Your task to perform on an android device: turn on notifications settings in the gmail app Image 0: 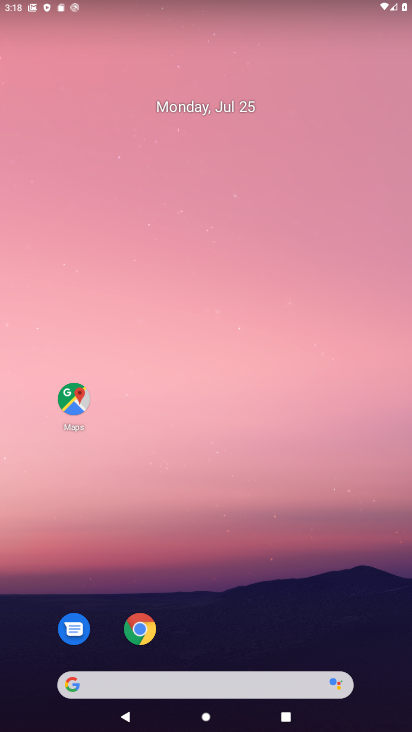
Step 0: drag from (210, 693) to (191, 50)
Your task to perform on an android device: turn on notifications settings in the gmail app Image 1: 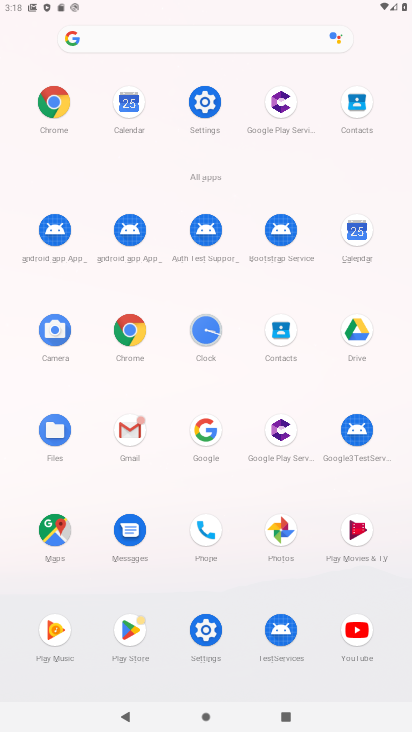
Step 1: click (133, 427)
Your task to perform on an android device: turn on notifications settings in the gmail app Image 2: 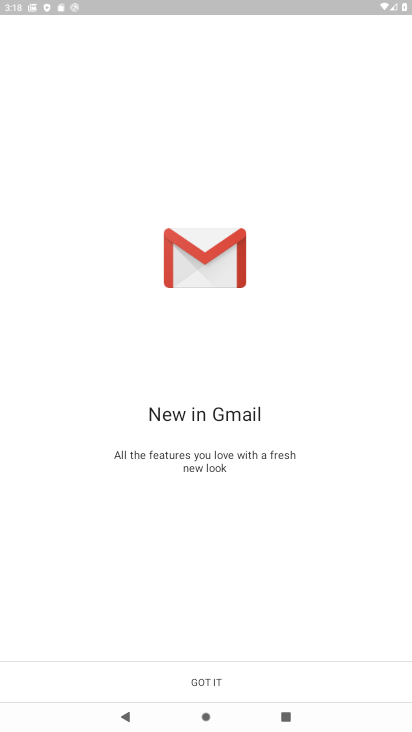
Step 2: click (222, 681)
Your task to perform on an android device: turn on notifications settings in the gmail app Image 3: 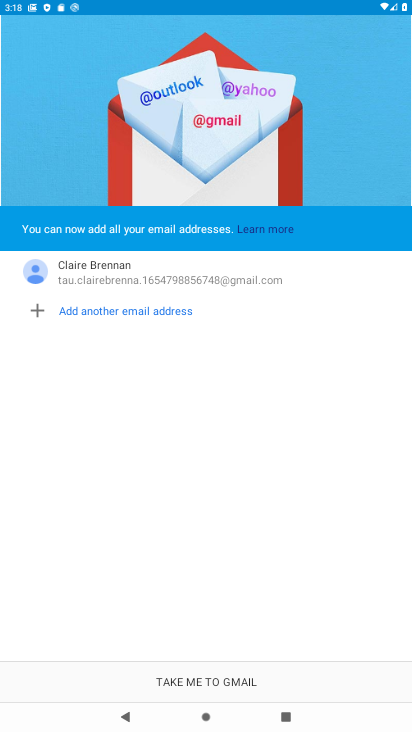
Step 3: click (255, 681)
Your task to perform on an android device: turn on notifications settings in the gmail app Image 4: 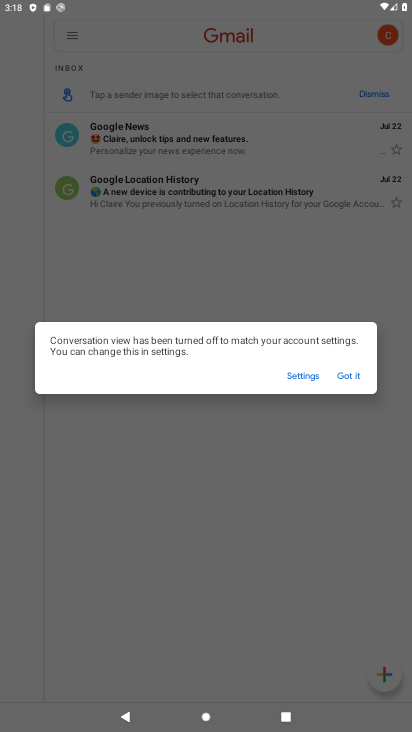
Step 4: click (340, 379)
Your task to perform on an android device: turn on notifications settings in the gmail app Image 5: 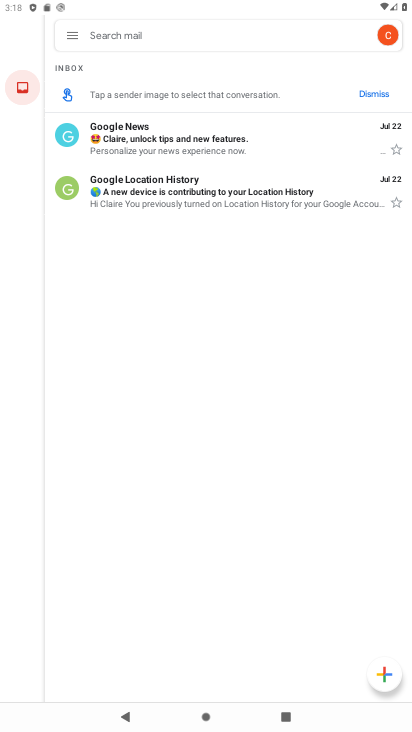
Step 5: click (67, 34)
Your task to perform on an android device: turn on notifications settings in the gmail app Image 6: 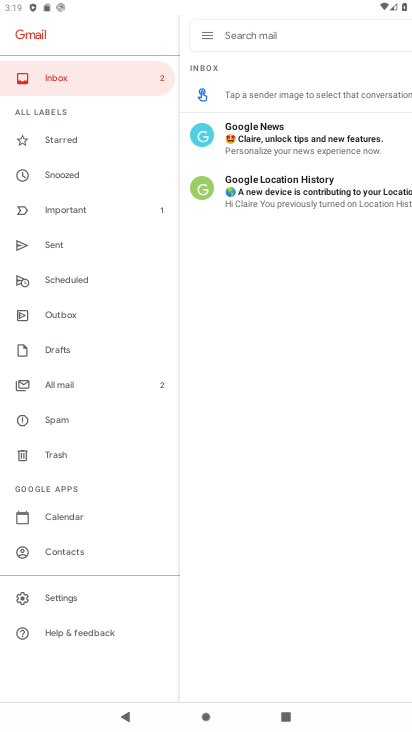
Step 6: click (74, 600)
Your task to perform on an android device: turn on notifications settings in the gmail app Image 7: 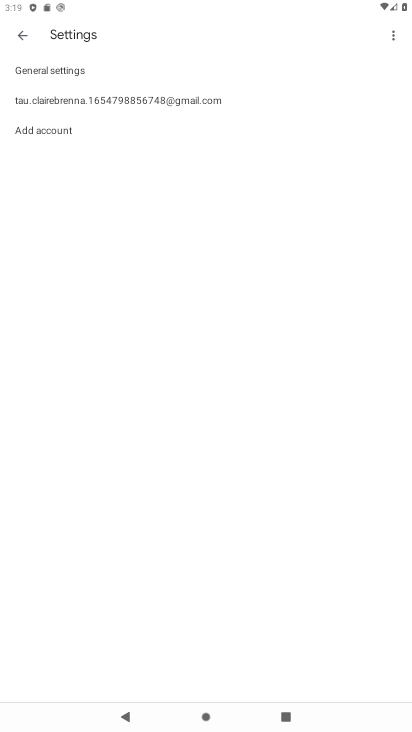
Step 7: click (137, 109)
Your task to perform on an android device: turn on notifications settings in the gmail app Image 8: 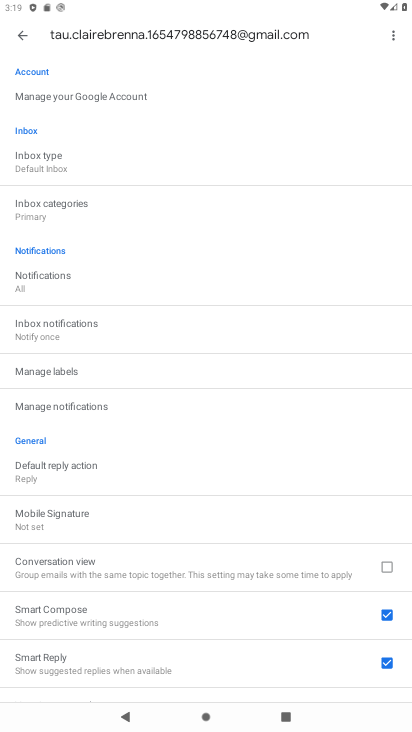
Step 8: click (72, 398)
Your task to perform on an android device: turn on notifications settings in the gmail app Image 9: 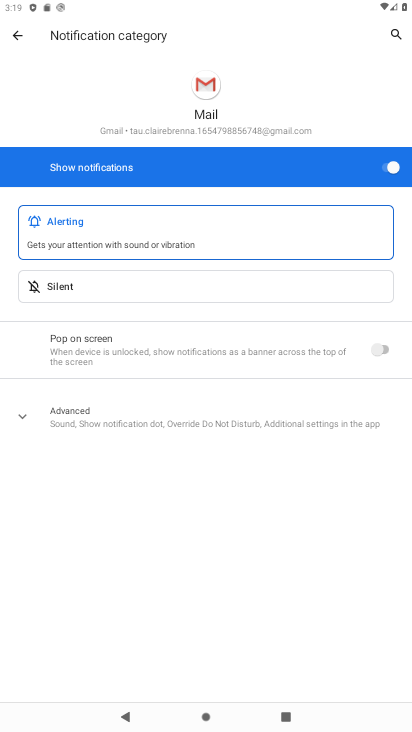
Step 9: task complete